Your task to perform on an android device: turn off data saver in the chrome app Image 0: 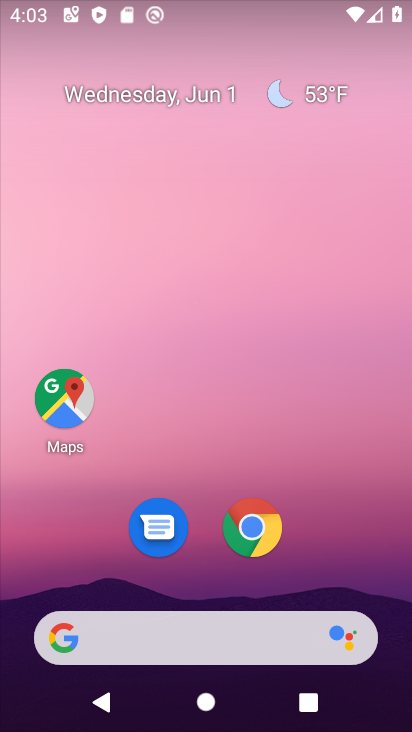
Step 0: click (243, 523)
Your task to perform on an android device: turn off data saver in the chrome app Image 1: 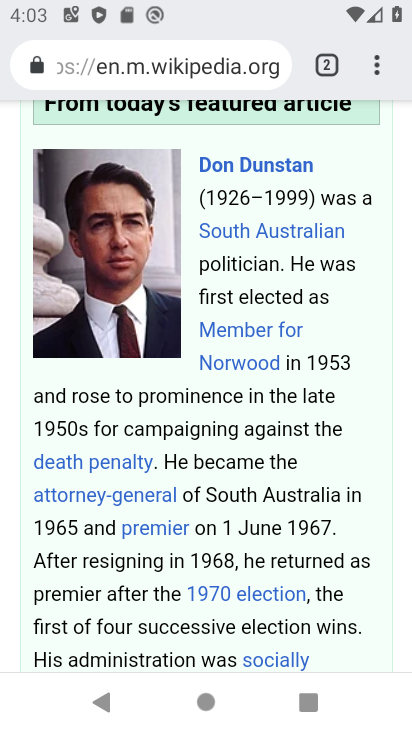
Step 1: drag from (378, 71) to (210, 593)
Your task to perform on an android device: turn off data saver in the chrome app Image 2: 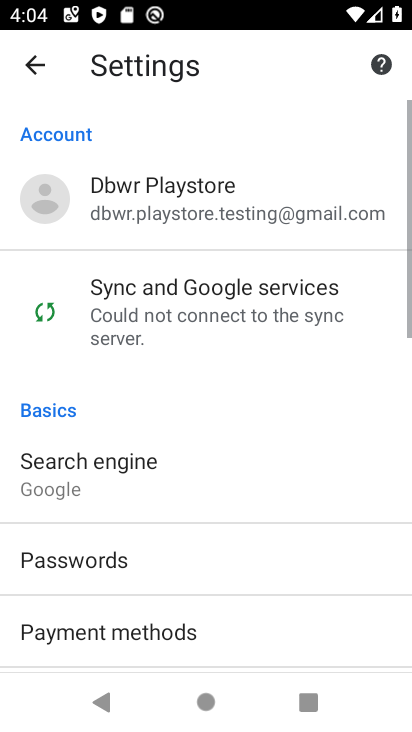
Step 2: drag from (233, 532) to (270, 185)
Your task to perform on an android device: turn off data saver in the chrome app Image 3: 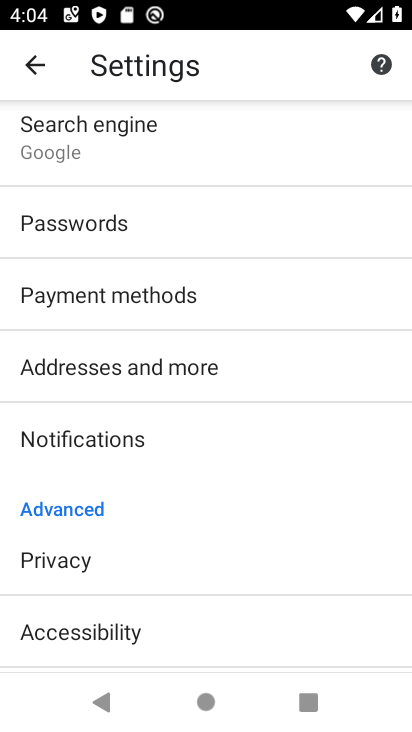
Step 3: drag from (243, 639) to (335, 182)
Your task to perform on an android device: turn off data saver in the chrome app Image 4: 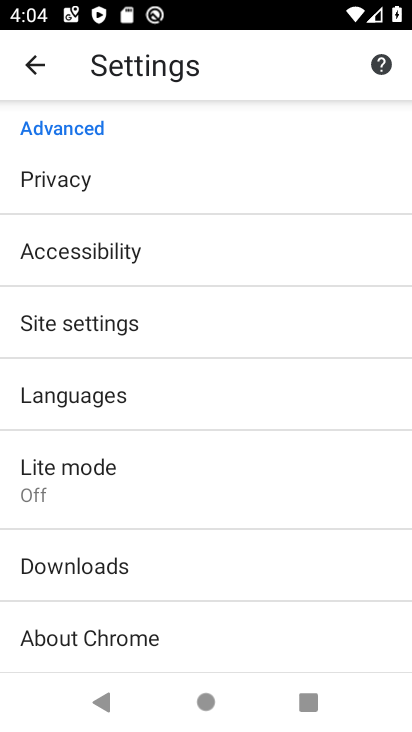
Step 4: click (65, 462)
Your task to perform on an android device: turn off data saver in the chrome app Image 5: 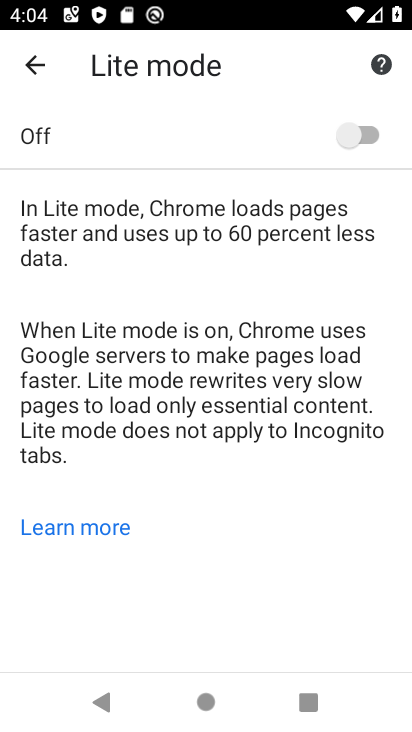
Step 5: task complete